Your task to perform on an android device: turn notification dots on Image 0: 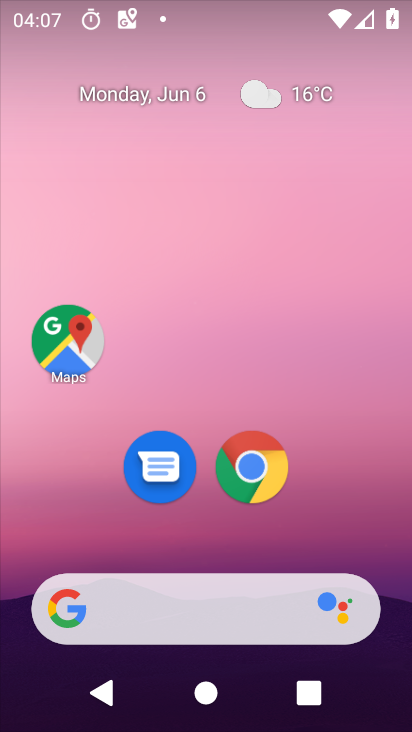
Step 0: press home button
Your task to perform on an android device: turn notification dots on Image 1: 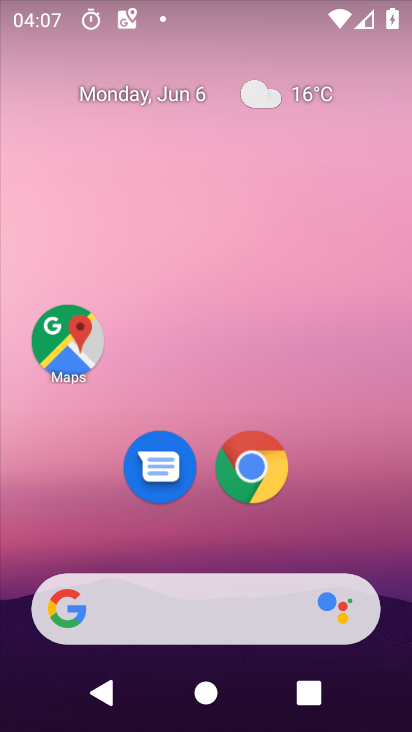
Step 1: drag from (198, 546) to (210, 81)
Your task to perform on an android device: turn notification dots on Image 2: 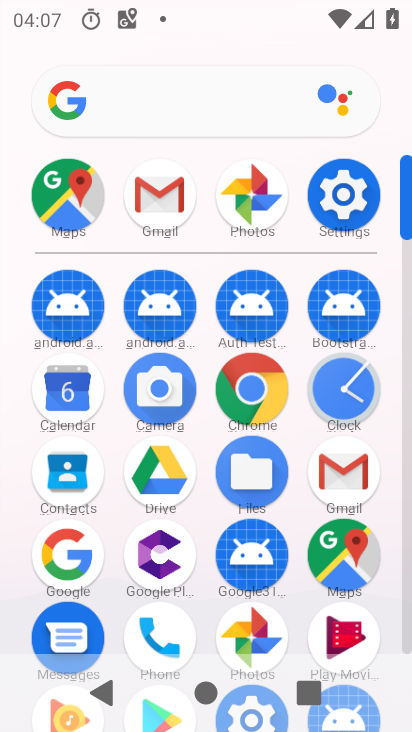
Step 2: click (340, 188)
Your task to perform on an android device: turn notification dots on Image 3: 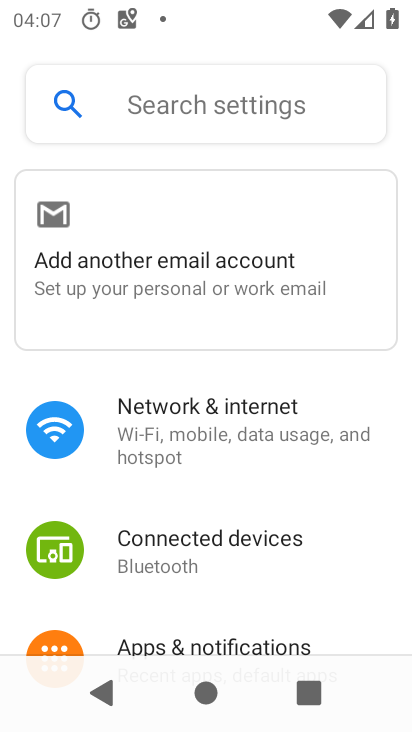
Step 3: click (254, 636)
Your task to perform on an android device: turn notification dots on Image 4: 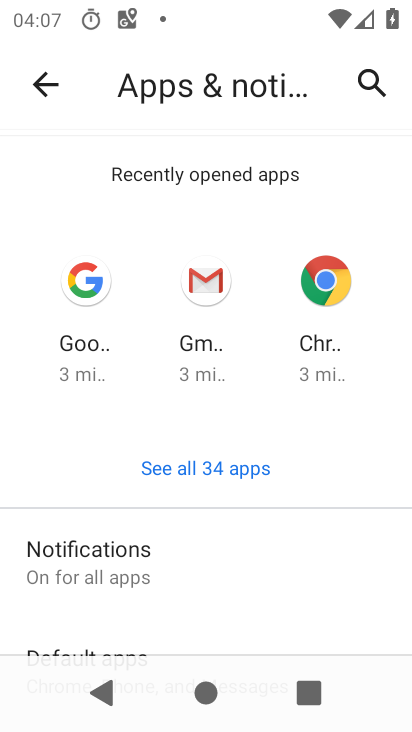
Step 4: click (197, 553)
Your task to perform on an android device: turn notification dots on Image 5: 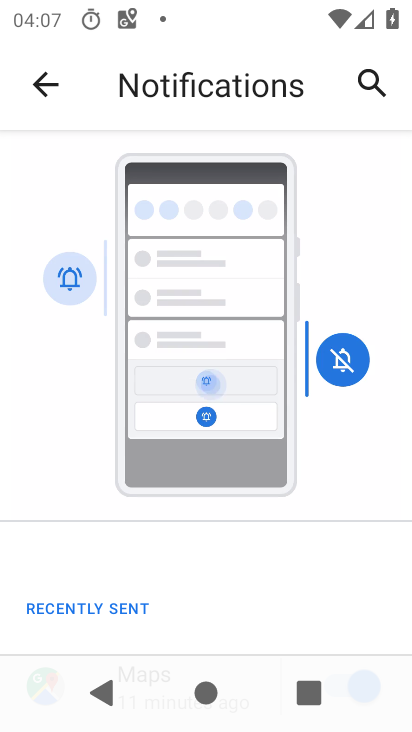
Step 5: drag from (223, 636) to (256, 56)
Your task to perform on an android device: turn notification dots on Image 6: 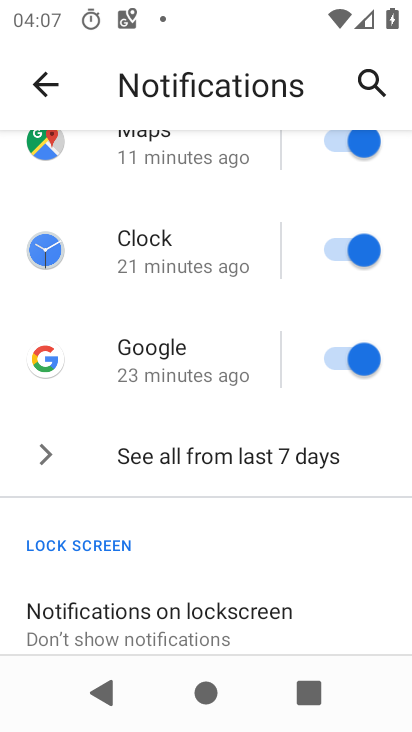
Step 6: drag from (253, 628) to (310, 80)
Your task to perform on an android device: turn notification dots on Image 7: 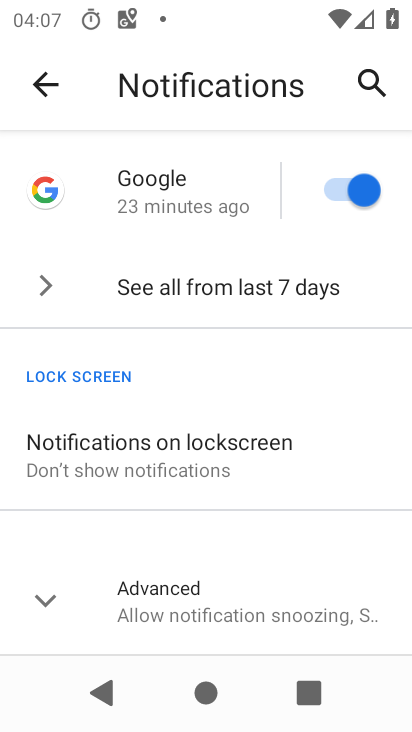
Step 7: click (43, 595)
Your task to perform on an android device: turn notification dots on Image 8: 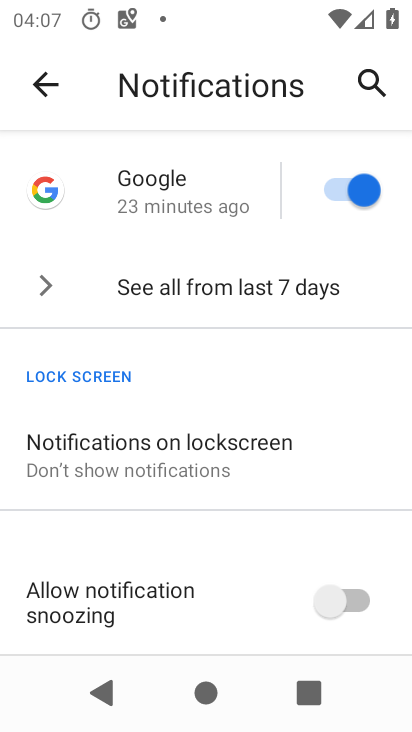
Step 8: drag from (230, 618) to (246, 180)
Your task to perform on an android device: turn notification dots on Image 9: 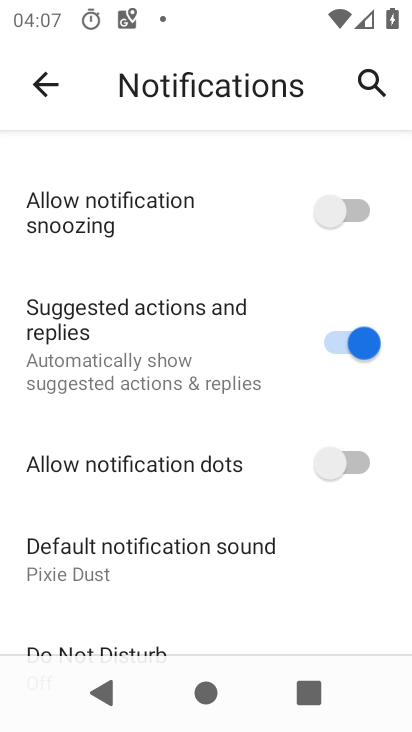
Step 9: click (349, 459)
Your task to perform on an android device: turn notification dots on Image 10: 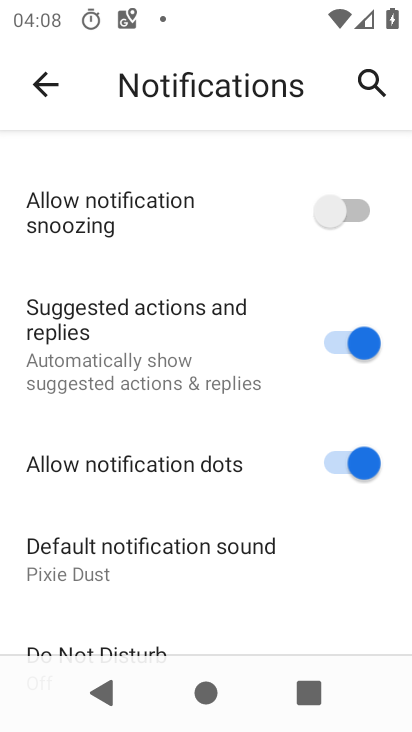
Step 10: task complete